Your task to perform on an android device: snooze an email in the gmail app Image 0: 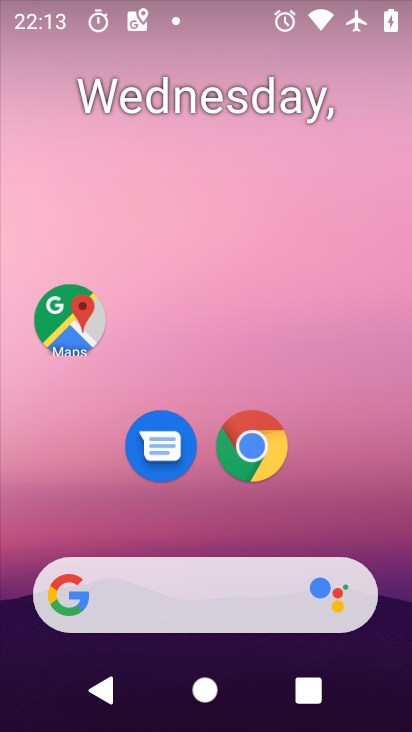
Step 0: press home button
Your task to perform on an android device: snooze an email in the gmail app Image 1: 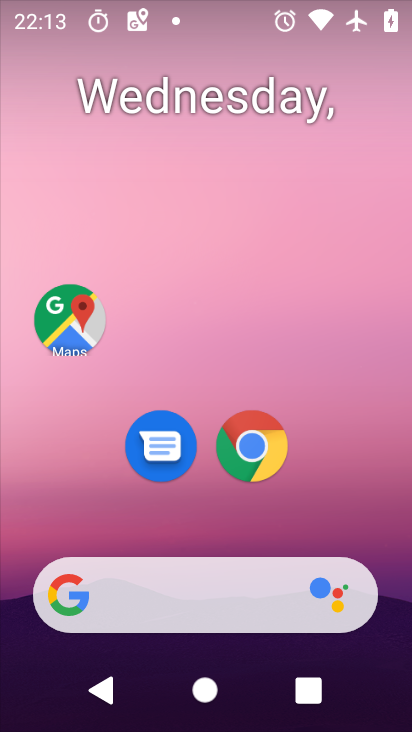
Step 1: drag from (227, 593) to (311, 127)
Your task to perform on an android device: snooze an email in the gmail app Image 2: 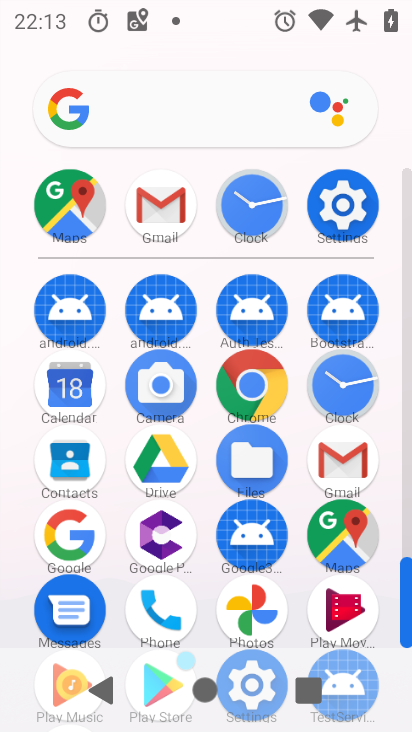
Step 2: click (156, 217)
Your task to perform on an android device: snooze an email in the gmail app Image 3: 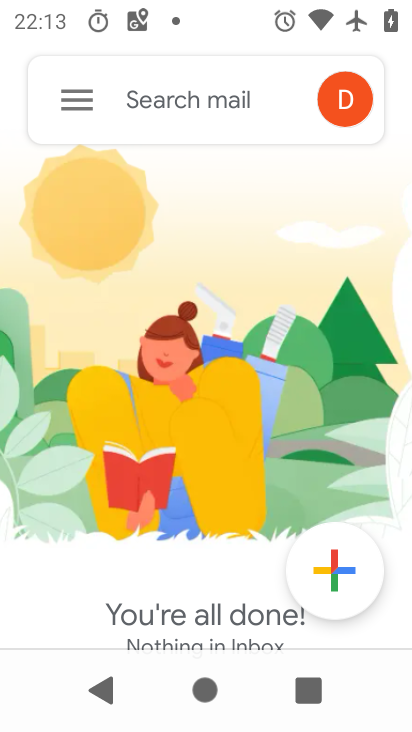
Step 3: task complete